Your task to perform on an android device: add a contact in the contacts app Image 0: 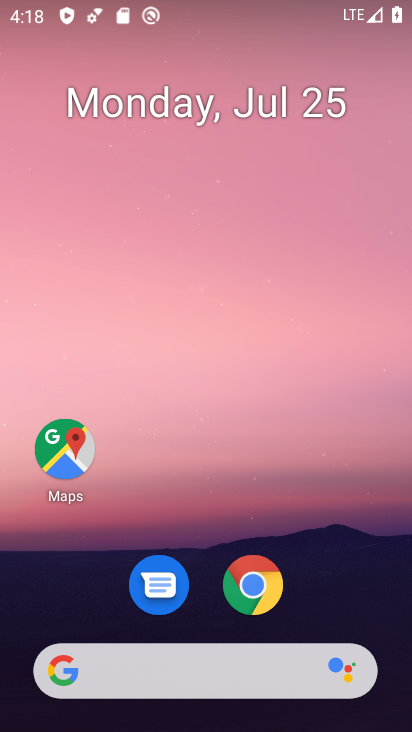
Step 0: drag from (332, 560) to (354, 39)
Your task to perform on an android device: add a contact in the contacts app Image 1: 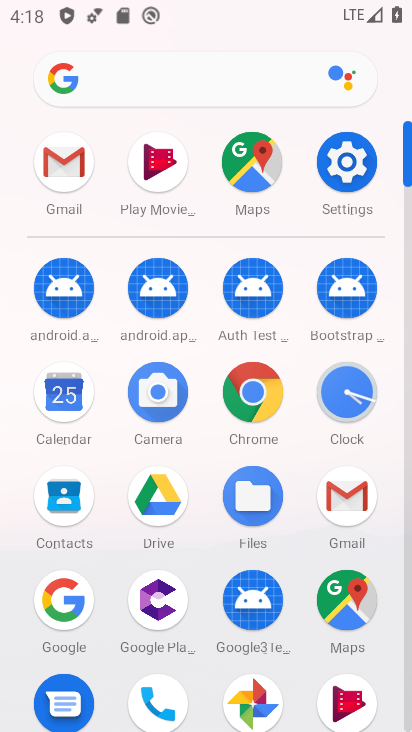
Step 1: click (64, 508)
Your task to perform on an android device: add a contact in the contacts app Image 2: 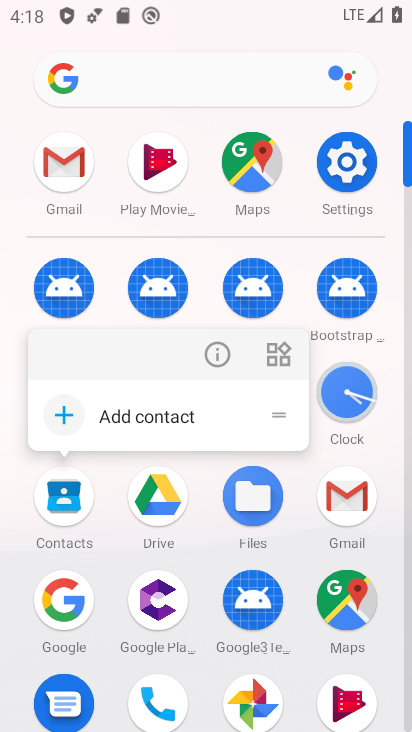
Step 2: click (64, 503)
Your task to perform on an android device: add a contact in the contacts app Image 3: 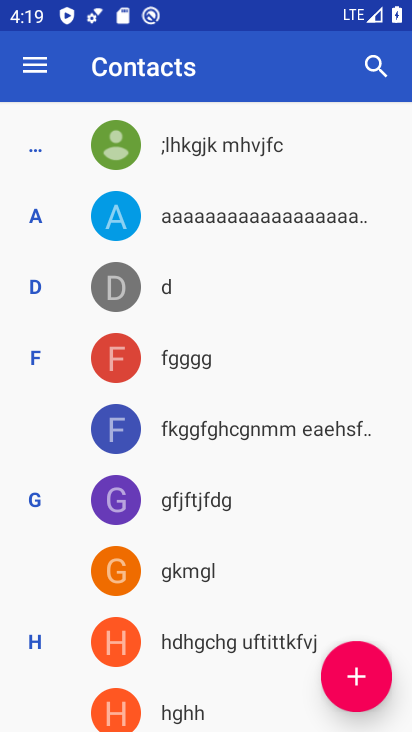
Step 3: drag from (247, 549) to (268, 190)
Your task to perform on an android device: add a contact in the contacts app Image 4: 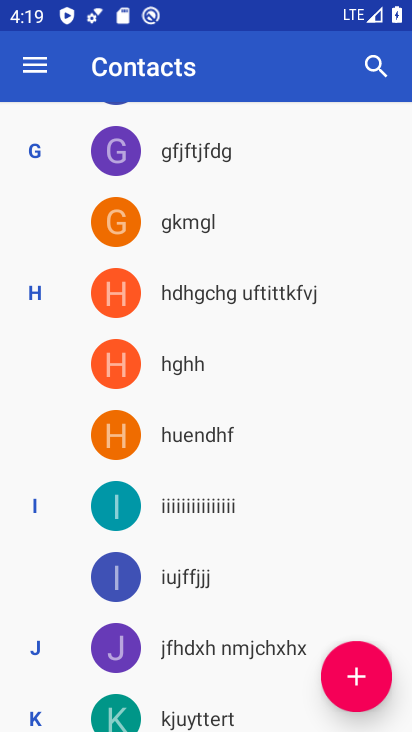
Step 4: drag from (224, 613) to (199, 235)
Your task to perform on an android device: add a contact in the contacts app Image 5: 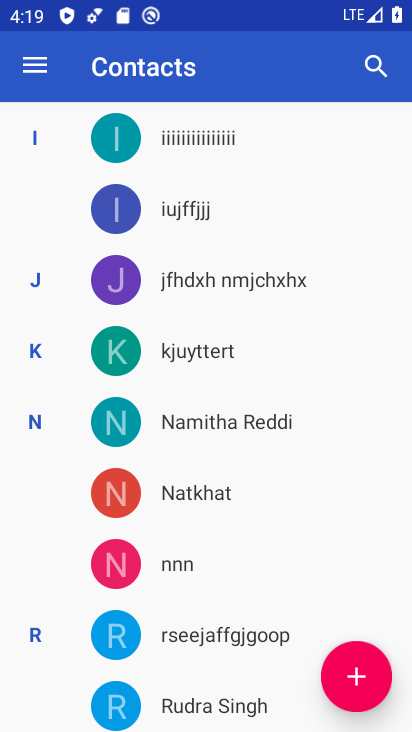
Step 5: drag from (190, 569) to (176, 280)
Your task to perform on an android device: add a contact in the contacts app Image 6: 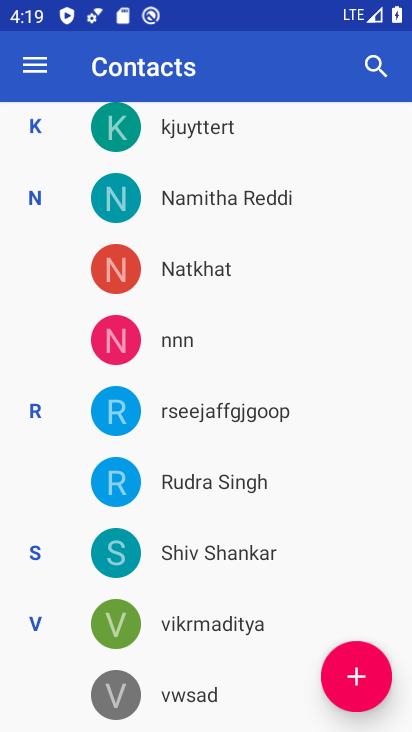
Step 6: drag from (191, 651) to (183, 325)
Your task to perform on an android device: add a contact in the contacts app Image 7: 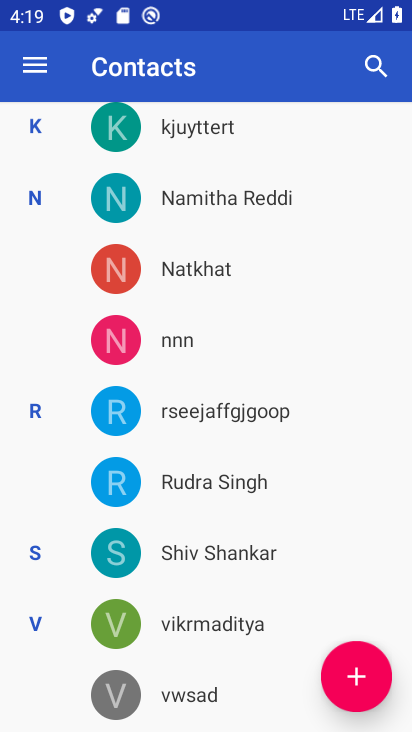
Step 7: click (358, 671)
Your task to perform on an android device: add a contact in the contacts app Image 8: 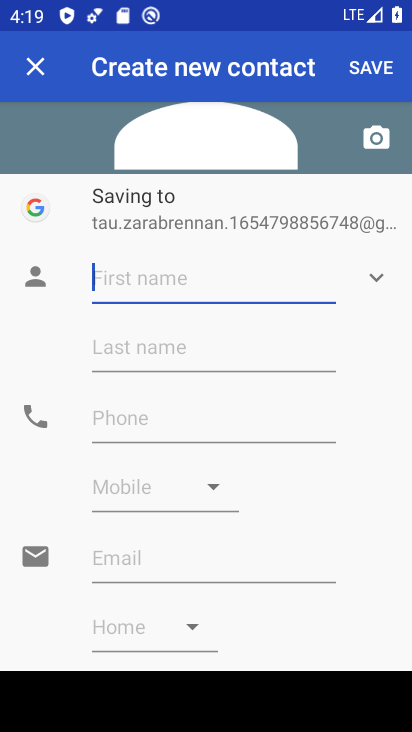
Step 8: type "Chandragupta Mahan"
Your task to perform on an android device: add a contact in the contacts app Image 9: 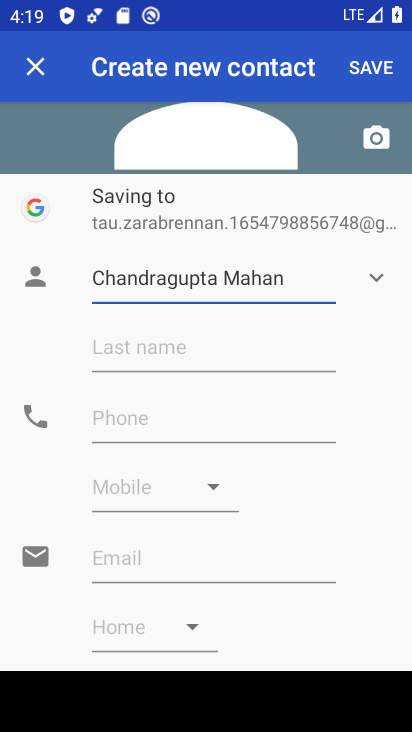
Step 9: click (202, 420)
Your task to perform on an android device: add a contact in the contacts app Image 10: 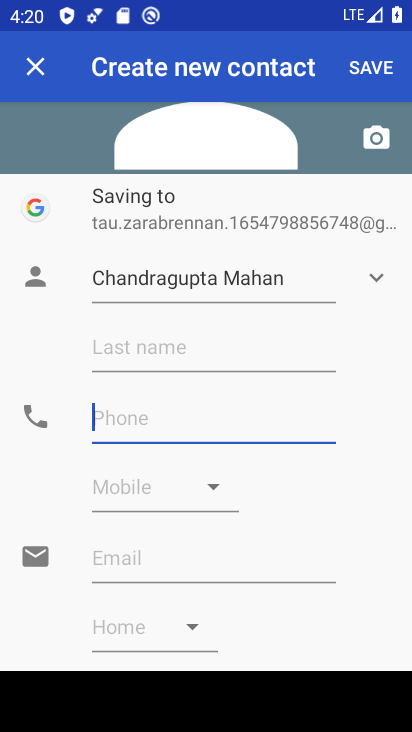
Step 10: type "+91999000000123"
Your task to perform on an android device: add a contact in the contacts app Image 11: 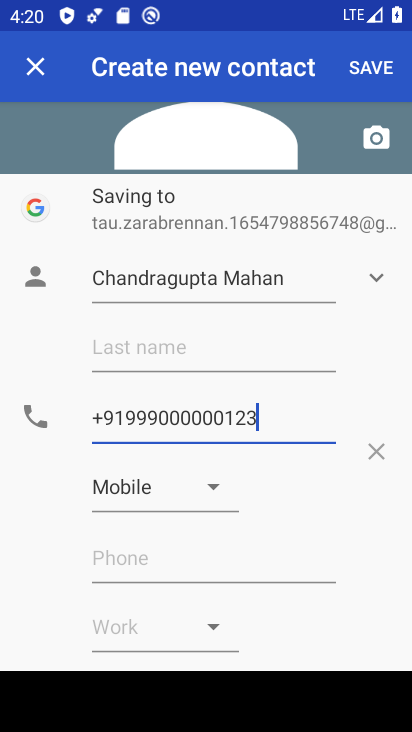
Step 11: click (386, 72)
Your task to perform on an android device: add a contact in the contacts app Image 12: 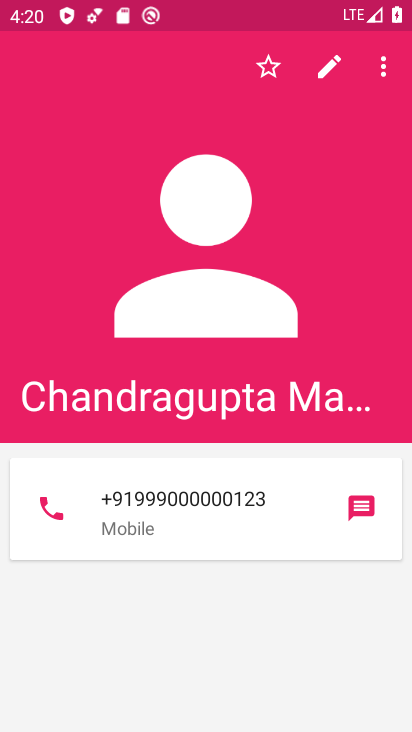
Step 12: task complete